Your task to perform on an android device: Open eBay Image 0: 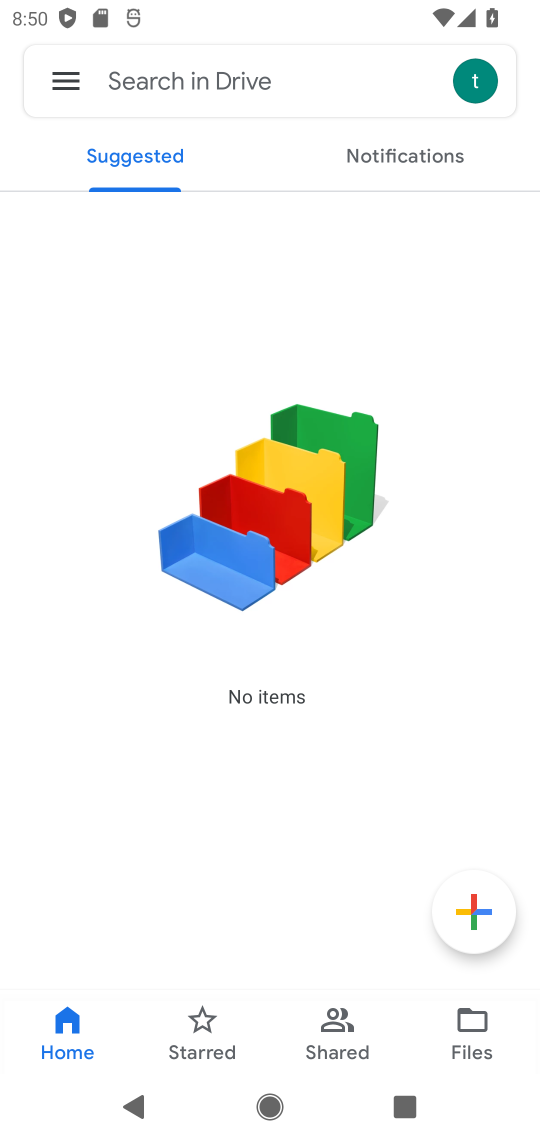
Step 0: press home button
Your task to perform on an android device: Open eBay Image 1: 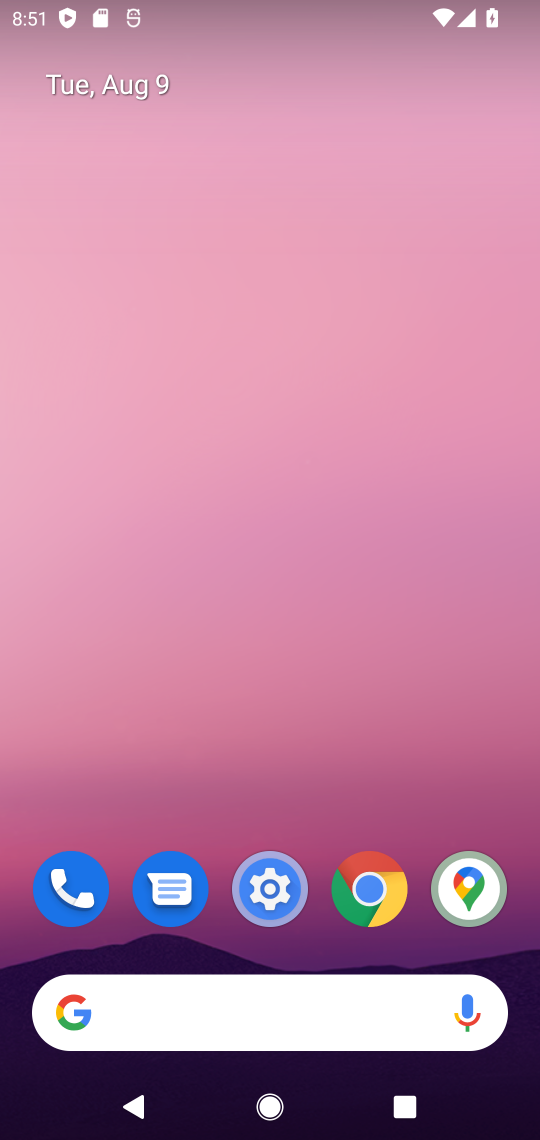
Step 1: drag from (294, 822) to (337, 74)
Your task to perform on an android device: Open eBay Image 2: 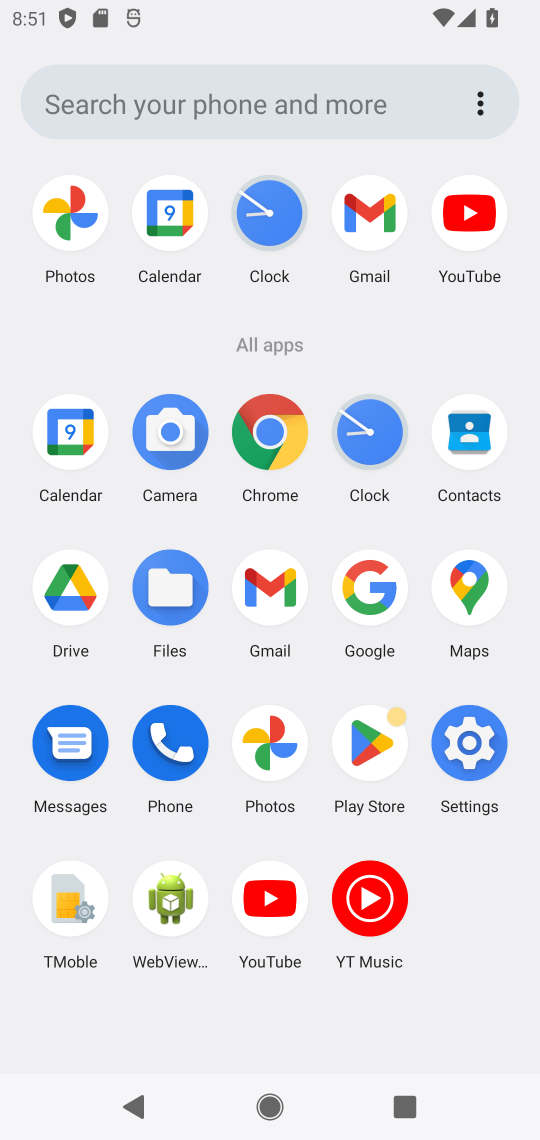
Step 2: click (253, 432)
Your task to perform on an android device: Open eBay Image 3: 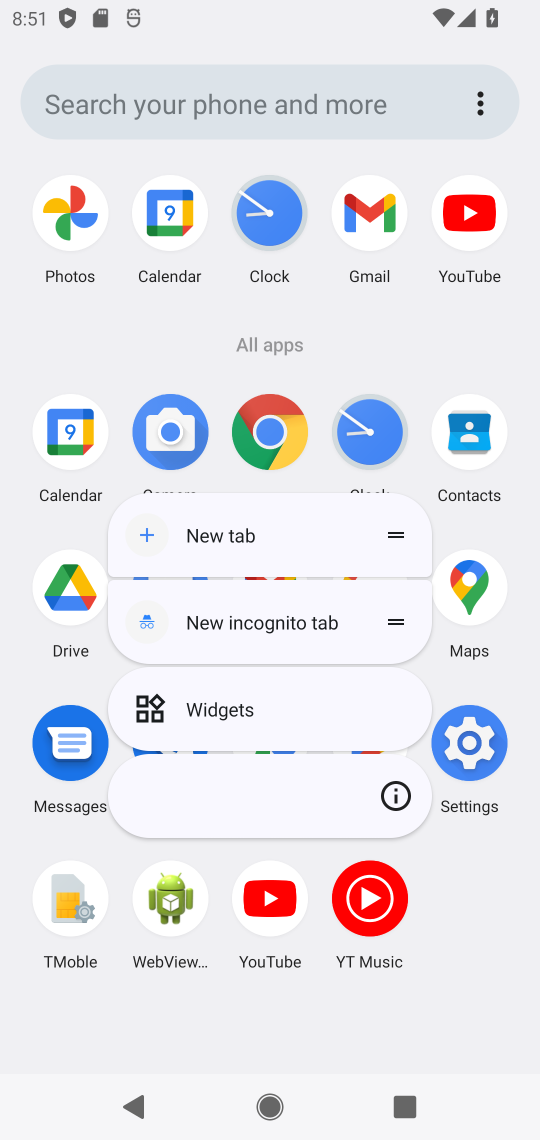
Step 3: click (269, 443)
Your task to perform on an android device: Open eBay Image 4: 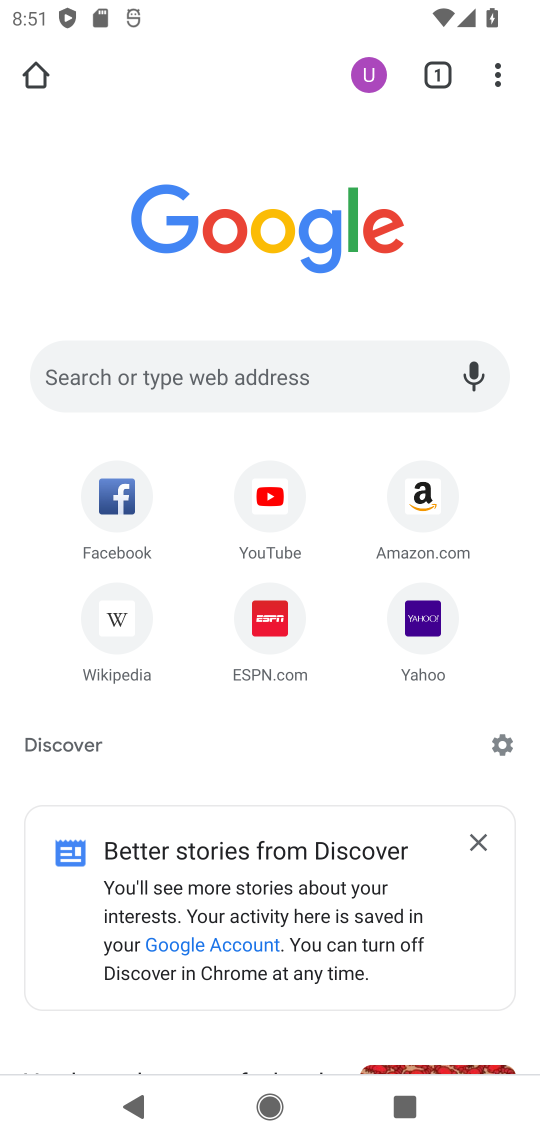
Step 4: drag from (355, 829) to (473, 339)
Your task to perform on an android device: Open eBay Image 5: 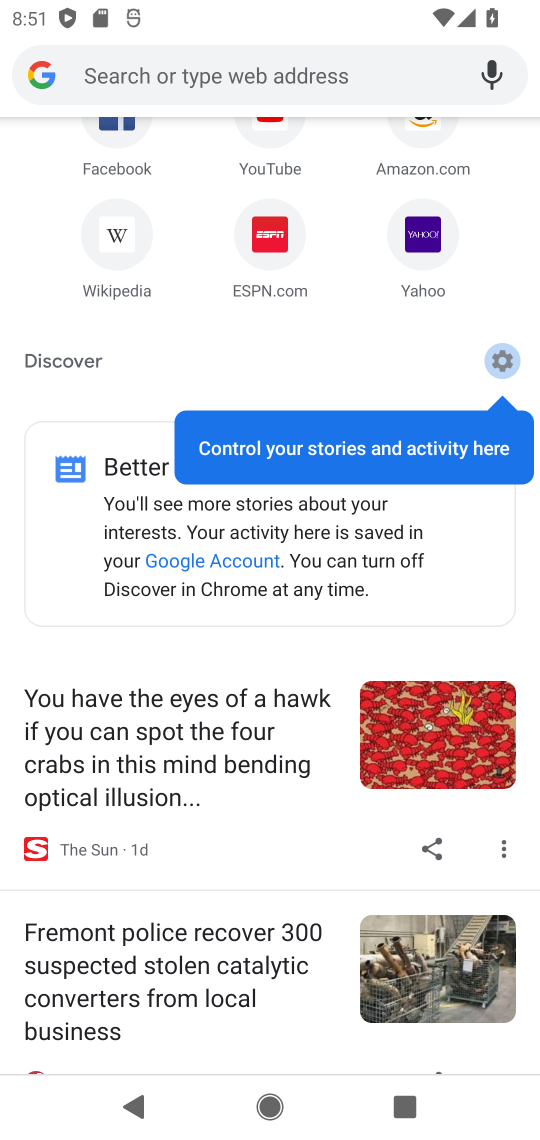
Step 5: drag from (298, 438) to (211, 917)
Your task to perform on an android device: Open eBay Image 6: 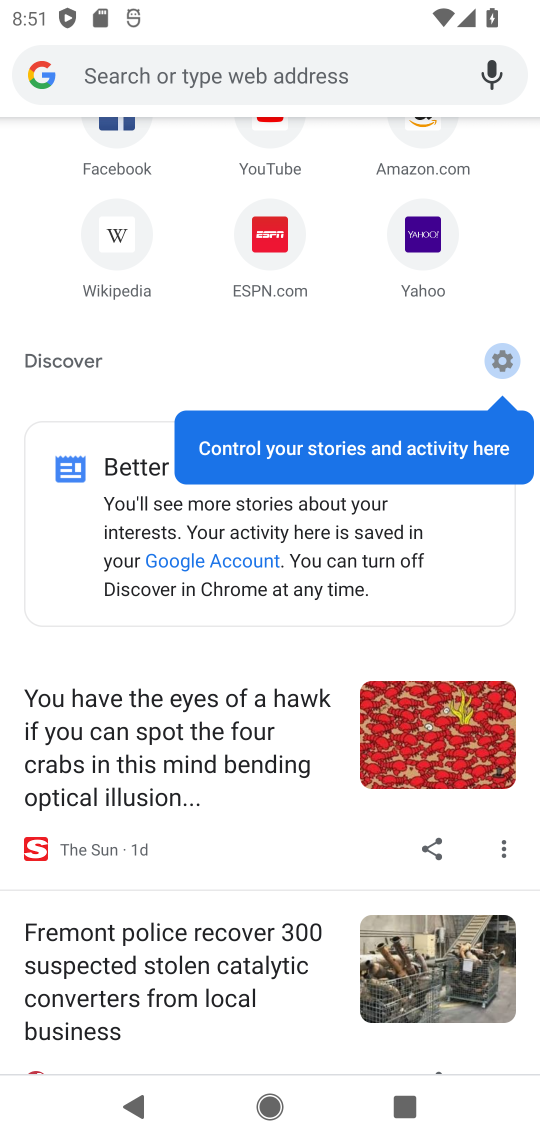
Step 6: drag from (244, 479) to (236, 949)
Your task to perform on an android device: Open eBay Image 7: 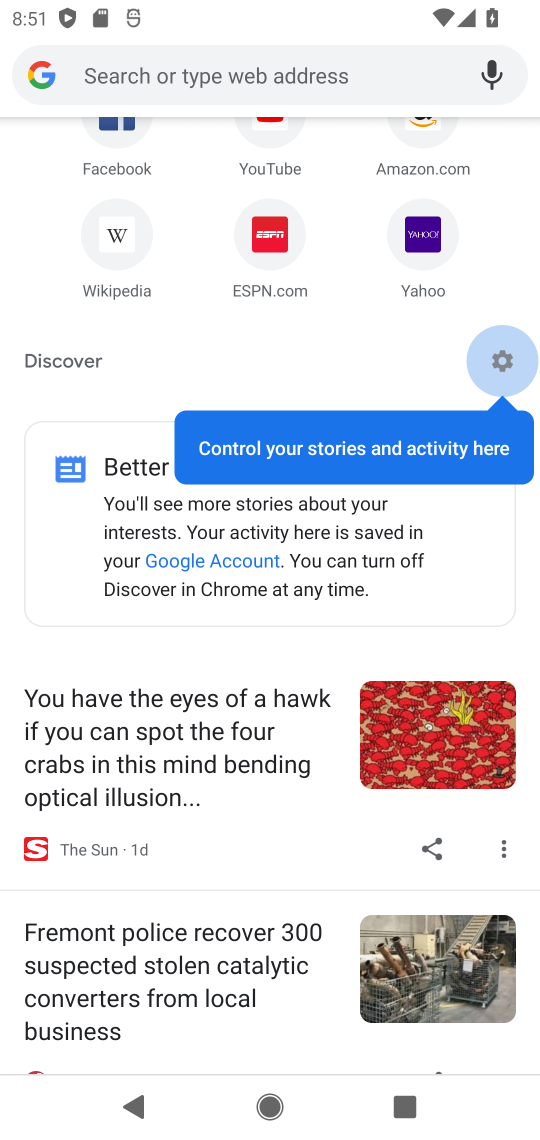
Step 7: drag from (238, 366) to (208, 1003)
Your task to perform on an android device: Open eBay Image 8: 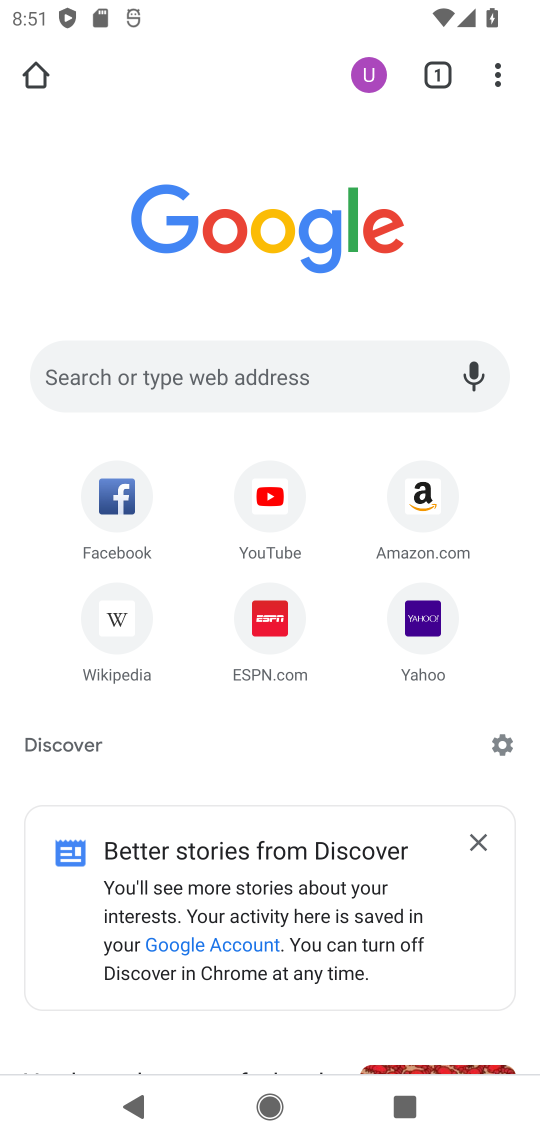
Step 8: click (225, 391)
Your task to perform on an android device: Open eBay Image 9: 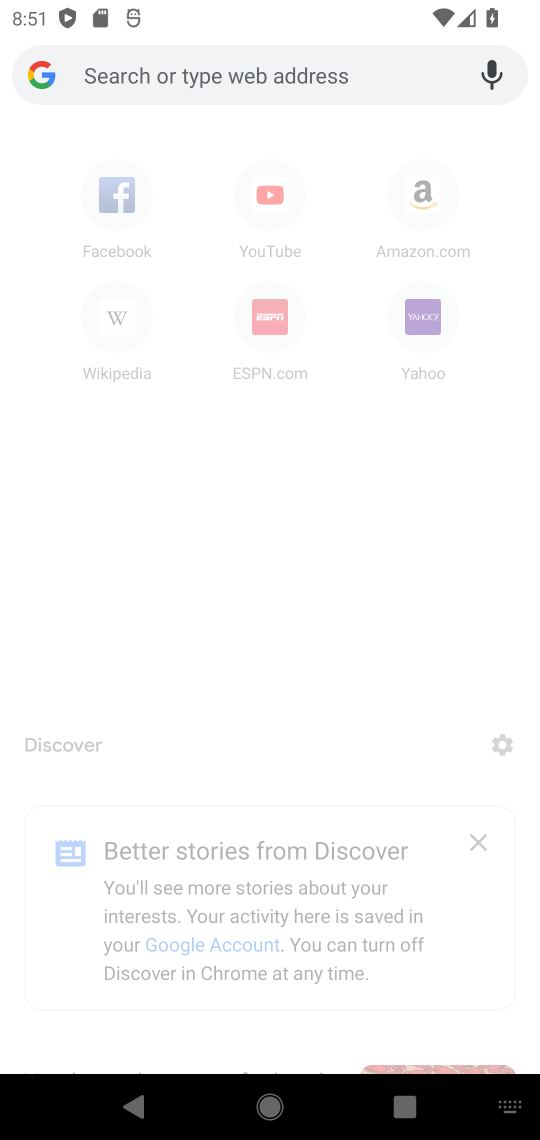
Step 9: type "eBay"
Your task to perform on an android device: Open eBay Image 10: 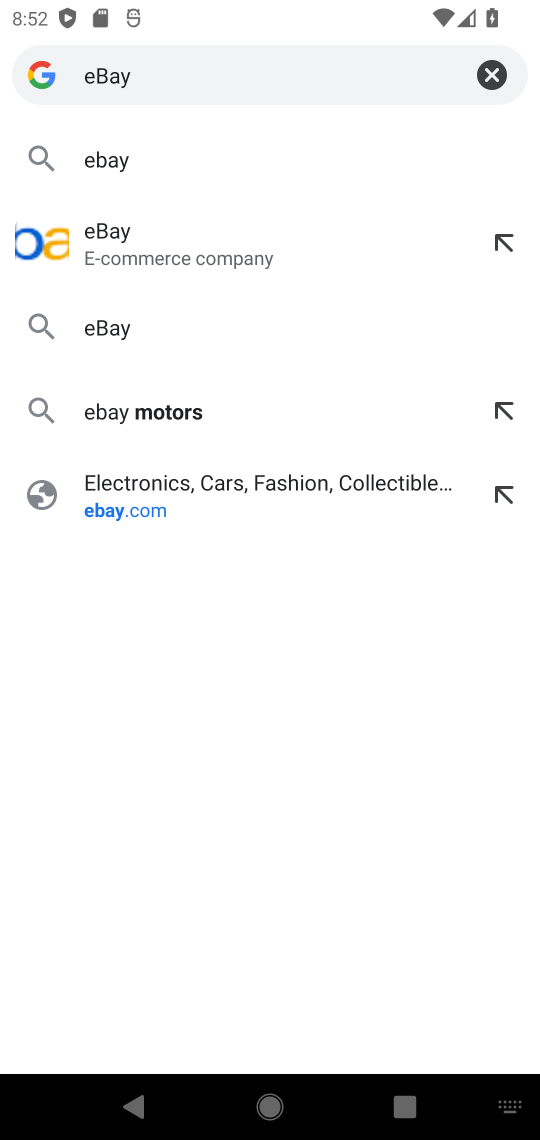
Step 10: click (183, 257)
Your task to perform on an android device: Open eBay Image 11: 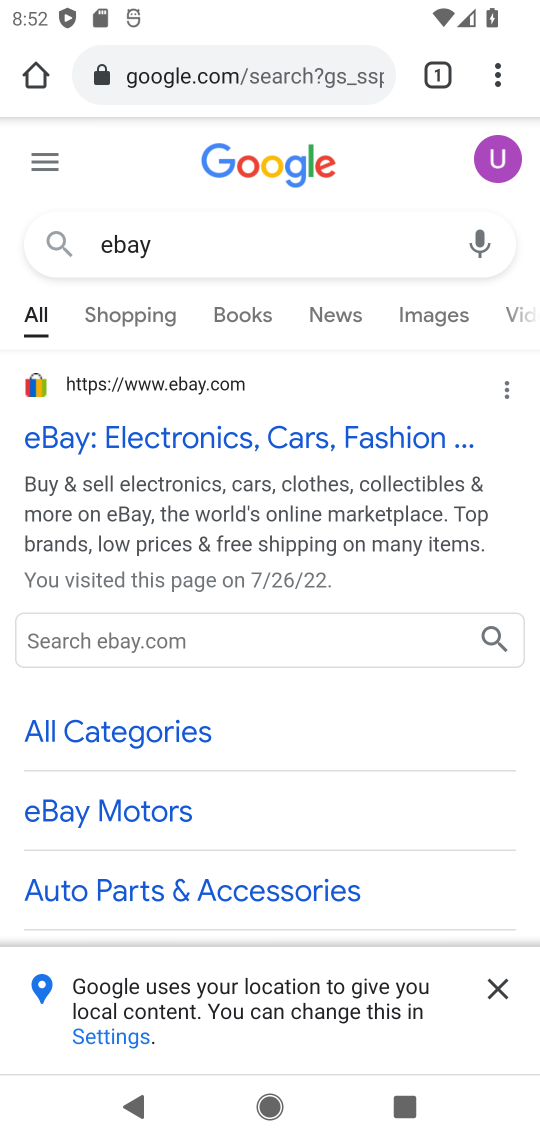
Step 11: click (192, 419)
Your task to perform on an android device: Open eBay Image 12: 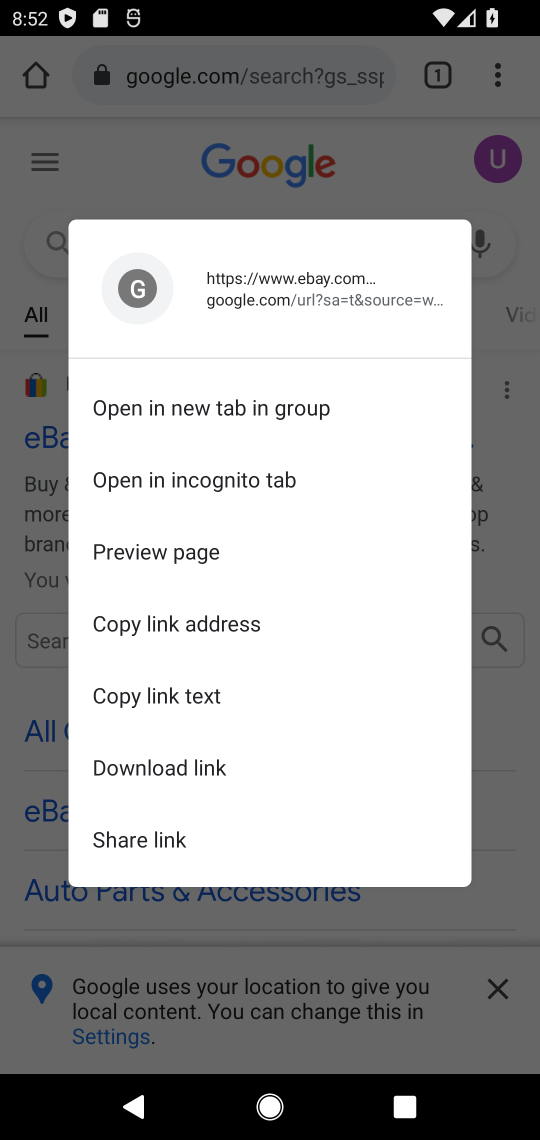
Step 12: click (438, 975)
Your task to perform on an android device: Open eBay Image 13: 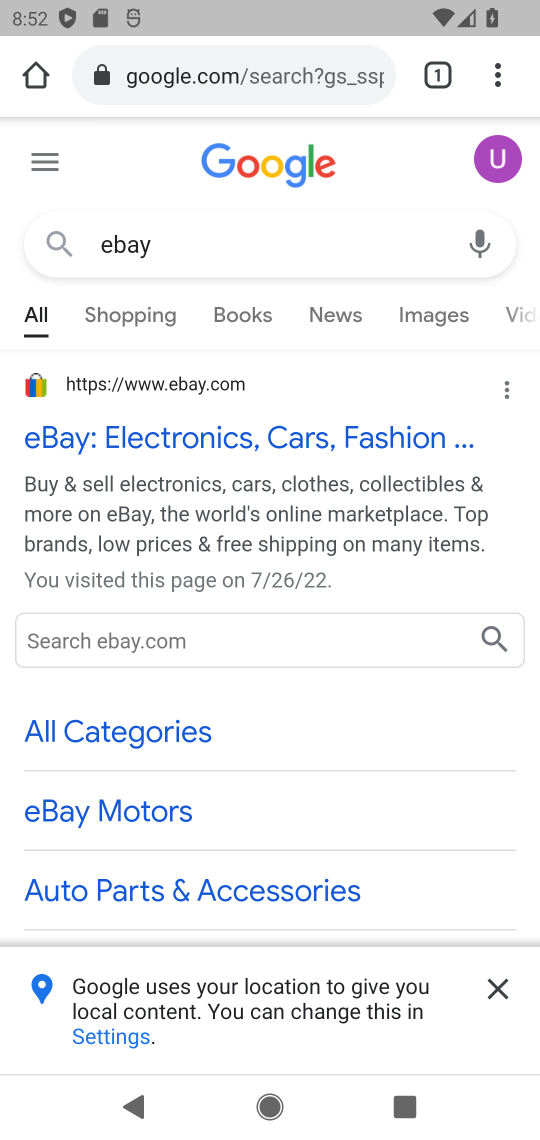
Step 13: task complete